Your task to perform on an android device: search for starred emails in the gmail app Image 0: 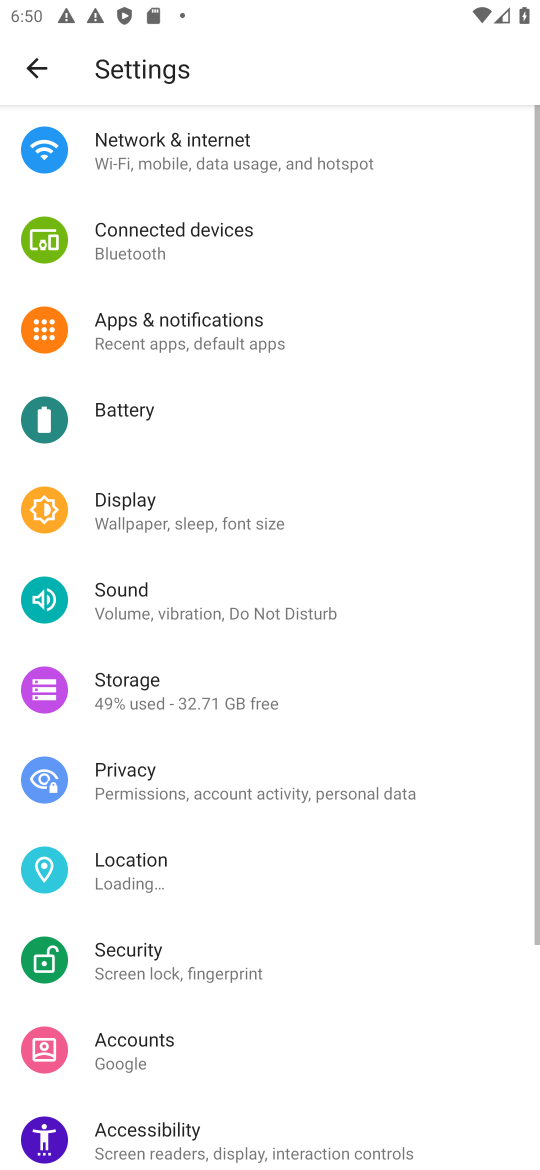
Step 0: press home button
Your task to perform on an android device: search for starred emails in the gmail app Image 1: 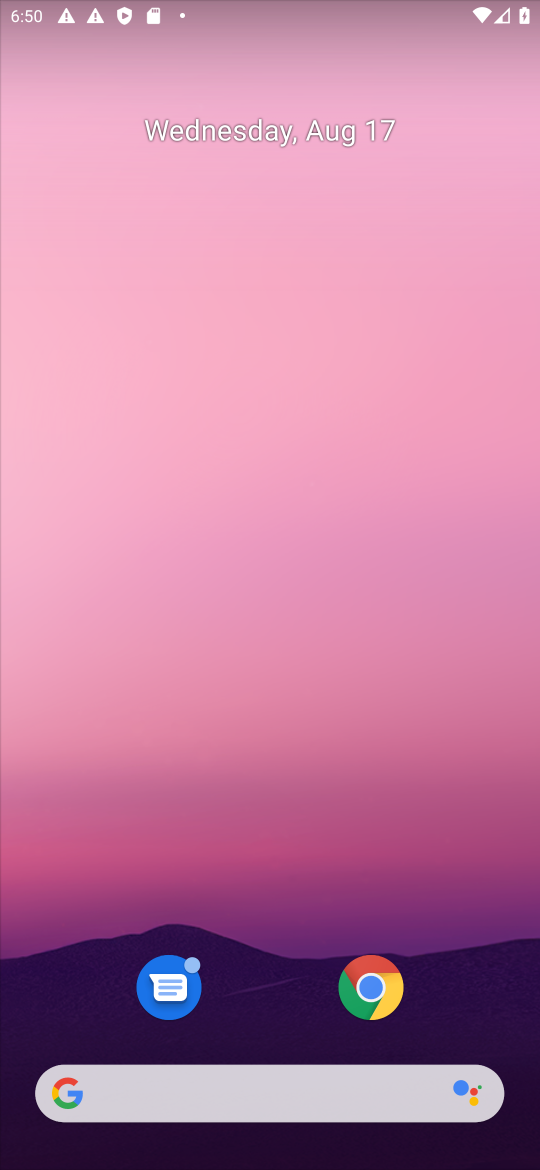
Step 1: drag from (272, 995) to (104, 45)
Your task to perform on an android device: search for starred emails in the gmail app Image 2: 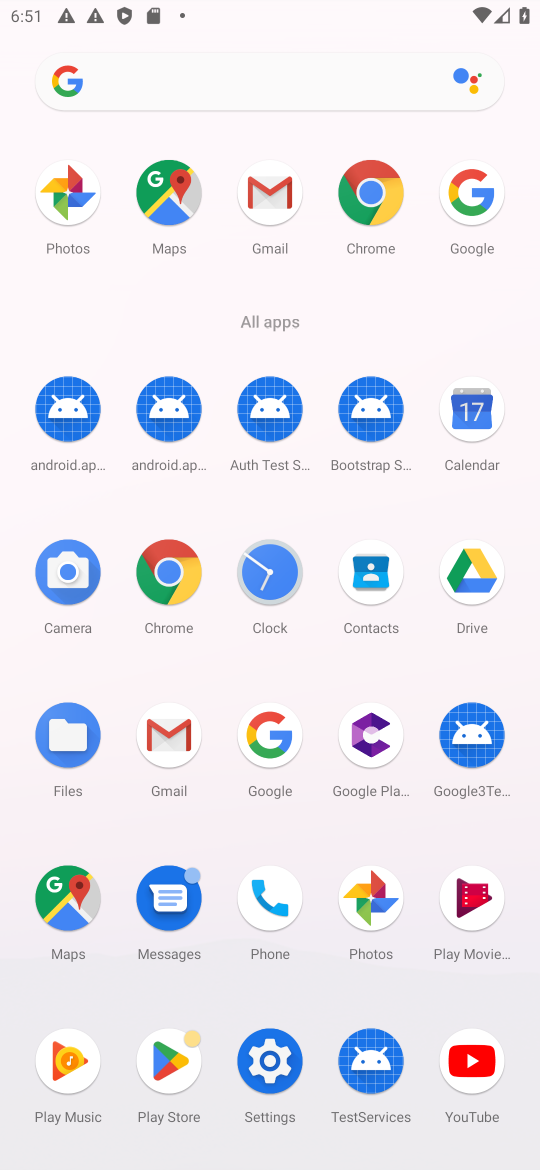
Step 2: click (159, 738)
Your task to perform on an android device: search for starred emails in the gmail app Image 3: 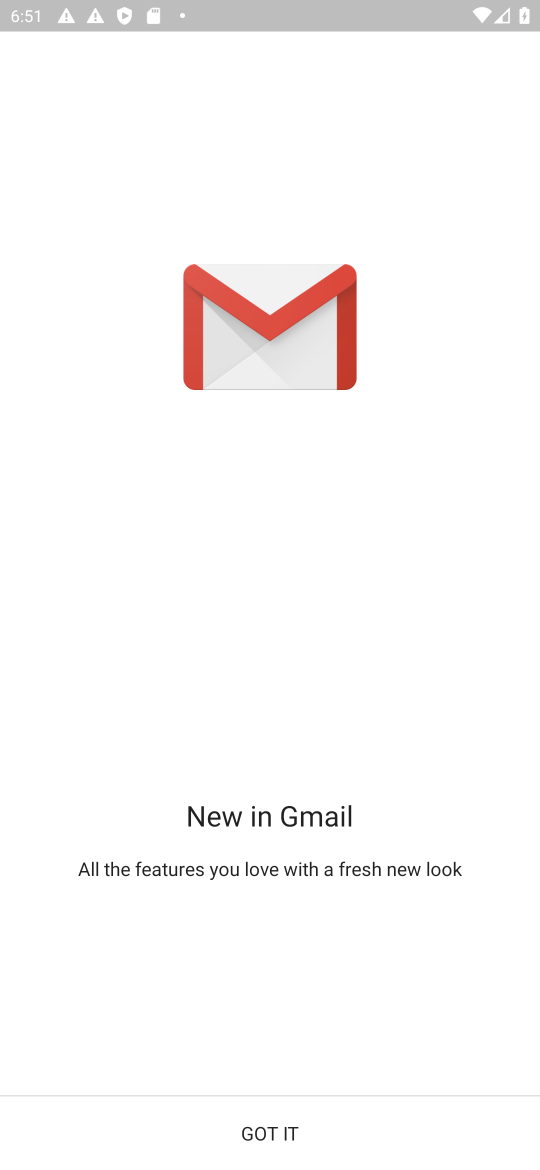
Step 3: click (261, 1132)
Your task to perform on an android device: search for starred emails in the gmail app Image 4: 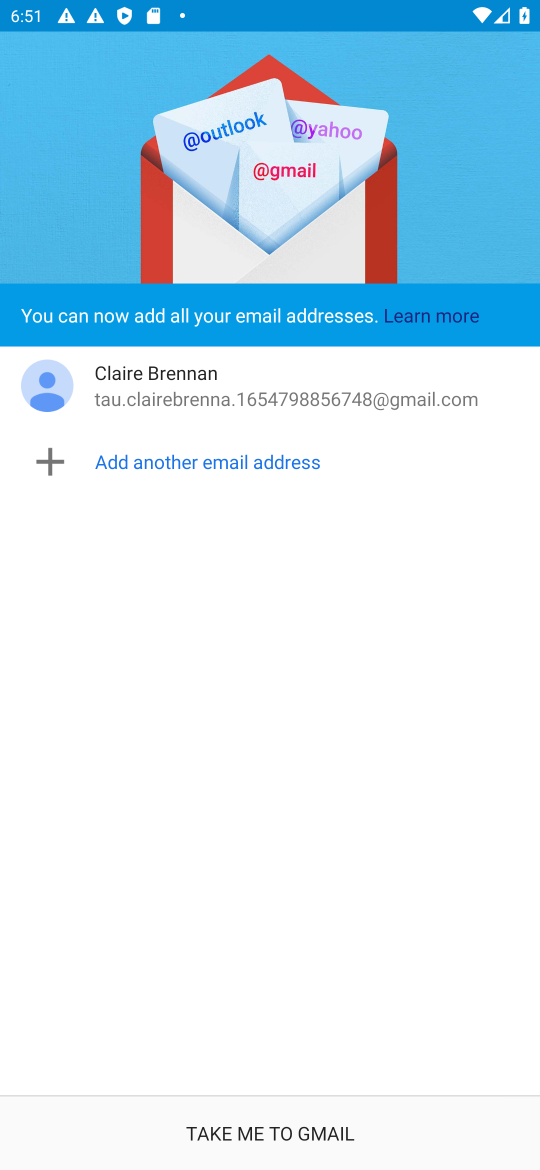
Step 4: click (261, 1132)
Your task to perform on an android device: search for starred emails in the gmail app Image 5: 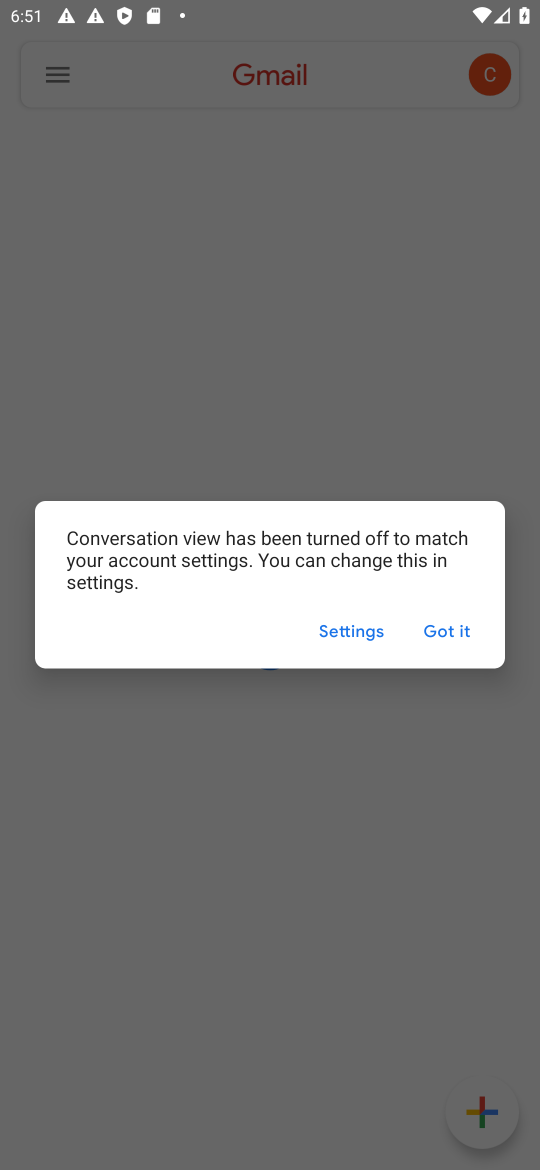
Step 5: click (443, 635)
Your task to perform on an android device: search for starred emails in the gmail app Image 6: 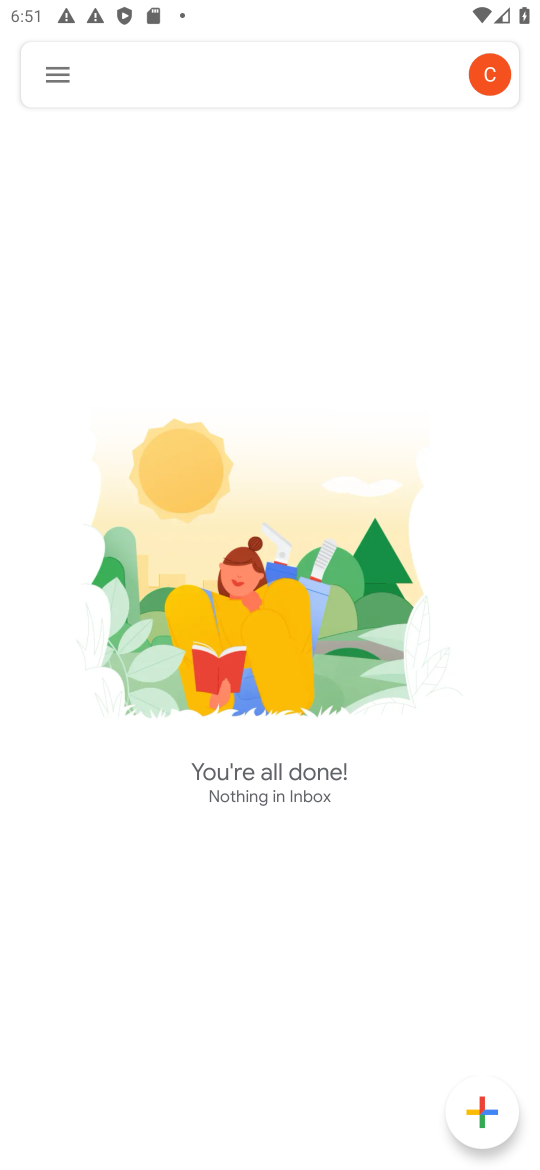
Step 6: click (56, 74)
Your task to perform on an android device: search for starred emails in the gmail app Image 7: 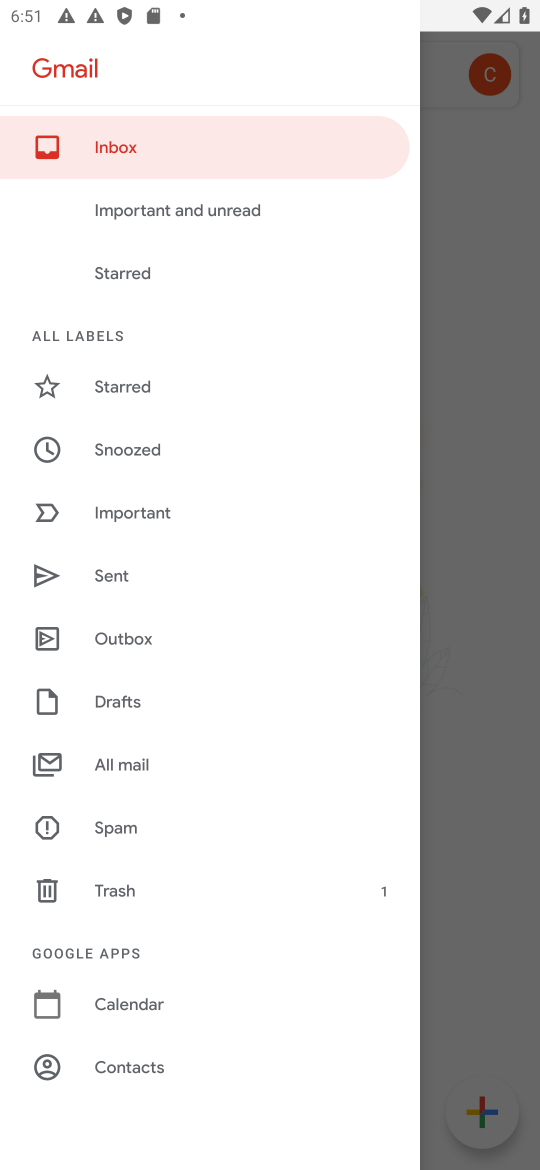
Step 7: click (150, 401)
Your task to perform on an android device: search for starred emails in the gmail app Image 8: 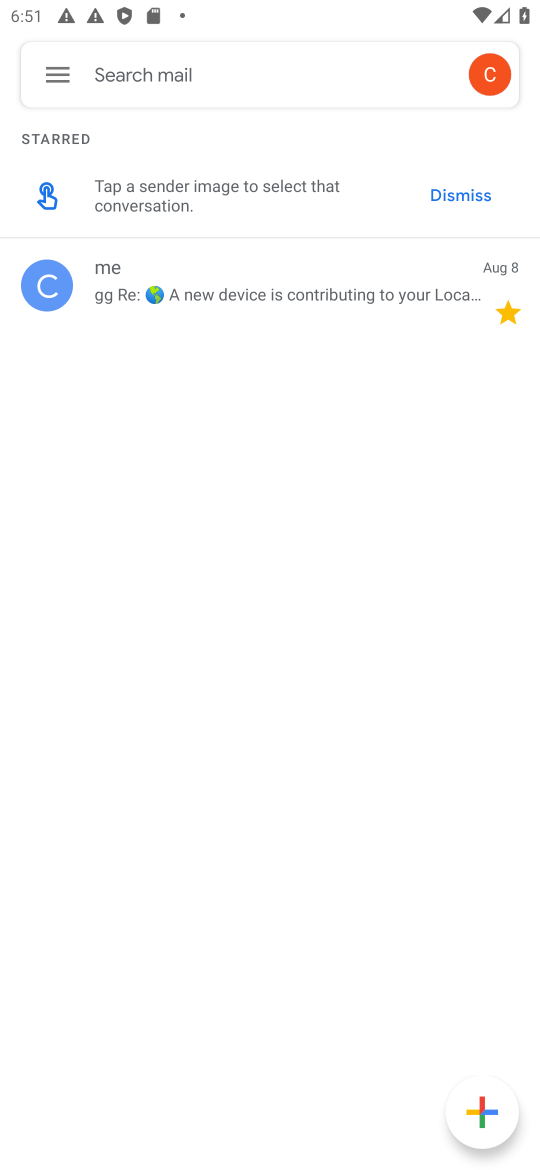
Step 8: task complete